Your task to perform on an android device: Open location settings Image 0: 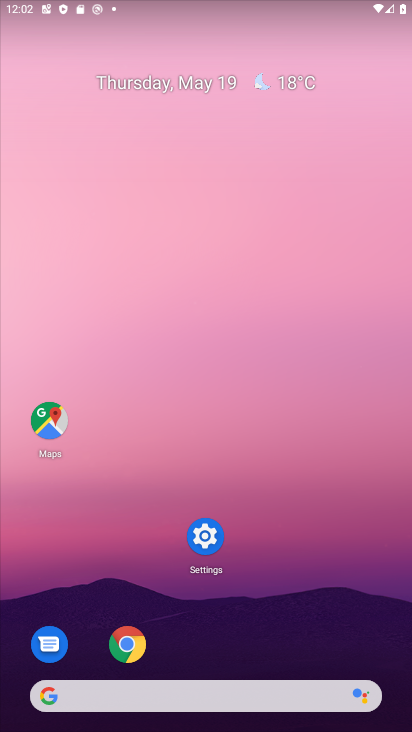
Step 0: drag from (288, 568) to (302, 56)
Your task to perform on an android device: Open location settings Image 1: 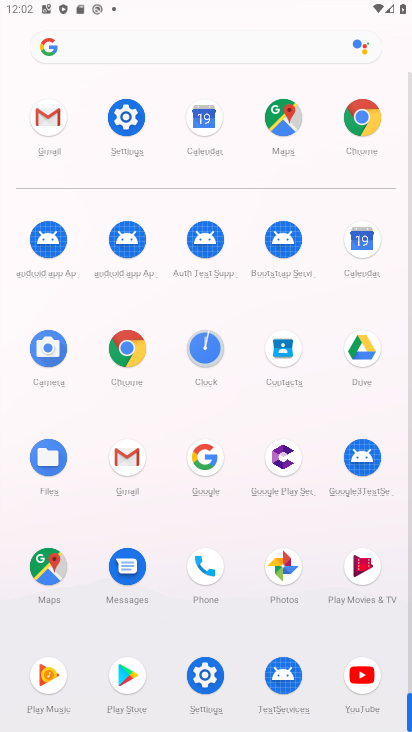
Step 1: click (131, 142)
Your task to perform on an android device: Open location settings Image 2: 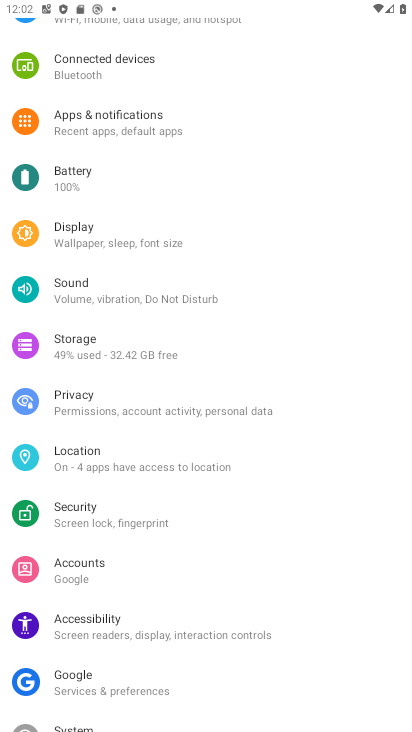
Step 2: click (124, 457)
Your task to perform on an android device: Open location settings Image 3: 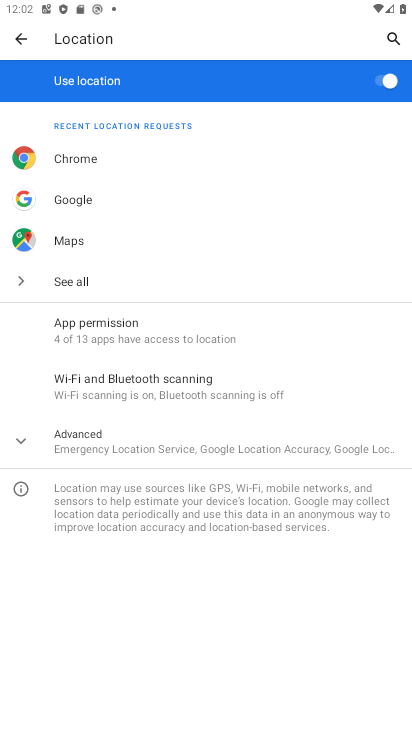
Step 3: task complete